Your task to perform on an android device: Go to calendar. Show me events next week Image 0: 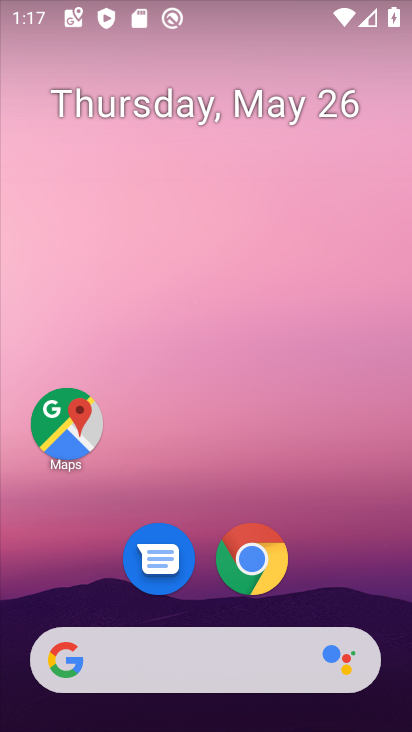
Step 0: drag from (195, 664) to (289, 136)
Your task to perform on an android device: Go to calendar. Show me events next week Image 1: 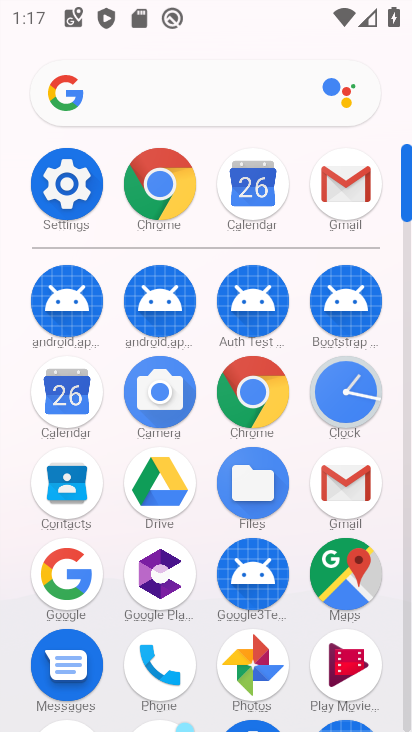
Step 1: click (63, 393)
Your task to perform on an android device: Go to calendar. Show me events next week Image 2: 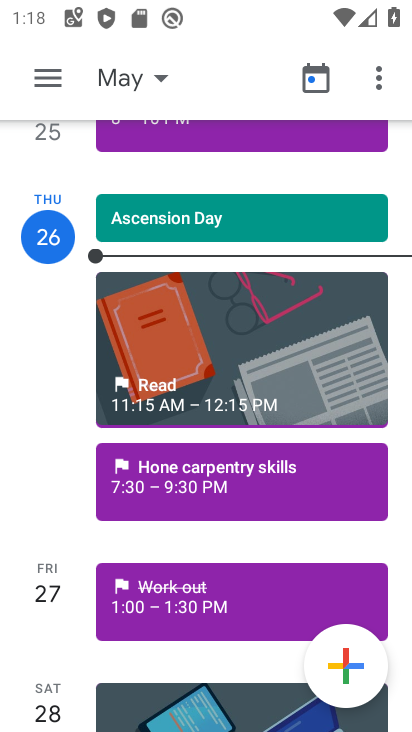
Step 2: click (116, 70)
Your task to perform on an android device: Go to calendar. Show me events next week Image 3: 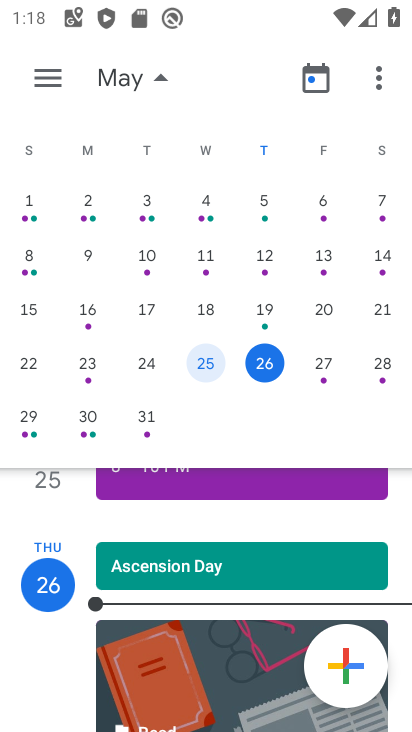
Step 3: click (29, 417)
Your task to perform on an android device: Go to calendar. Show me events next week Image 4: 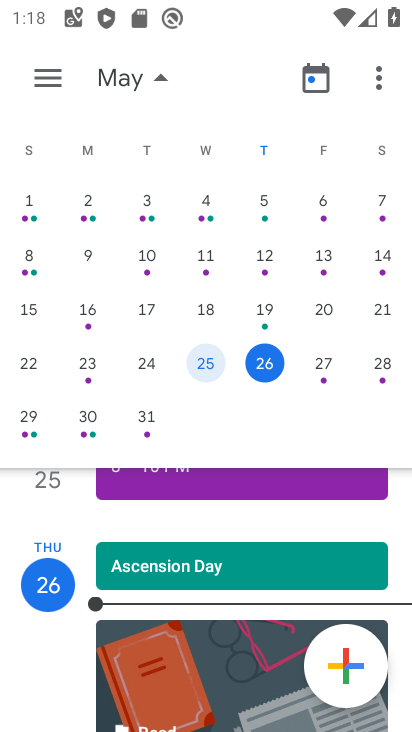
Step 4: click (41, 419)
Your task to perform on an android device: Go to calendar. Show me events next week Image 5: 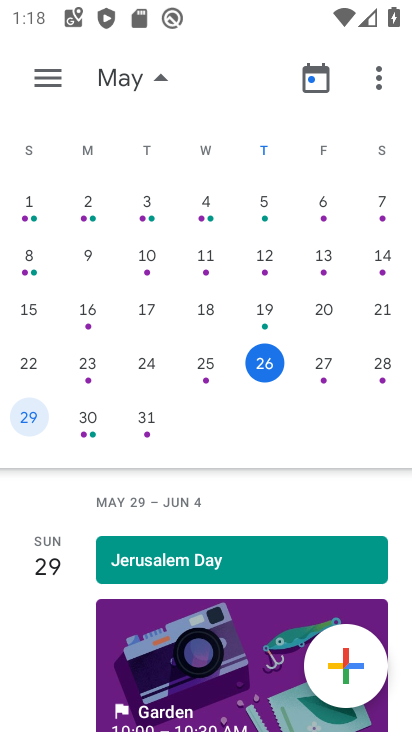
Step 5: click (51, 87)
Your task to perform on an android device: Go to calendar. Show me events next week Image 6: 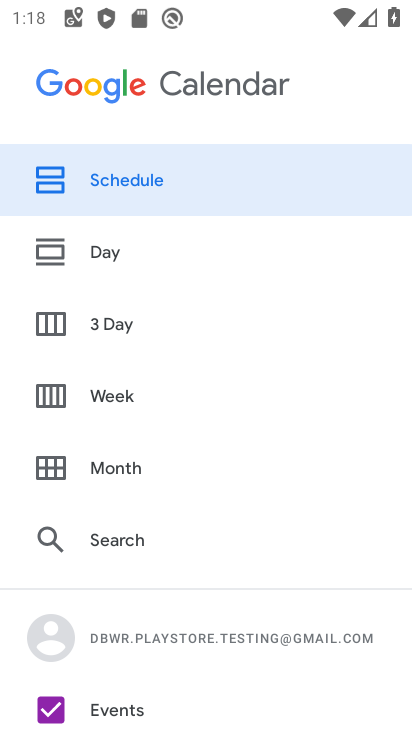
Step 6: click (98, 392)
Your task to perform on an android device: Go to calendar. Show me events next week Image 7: 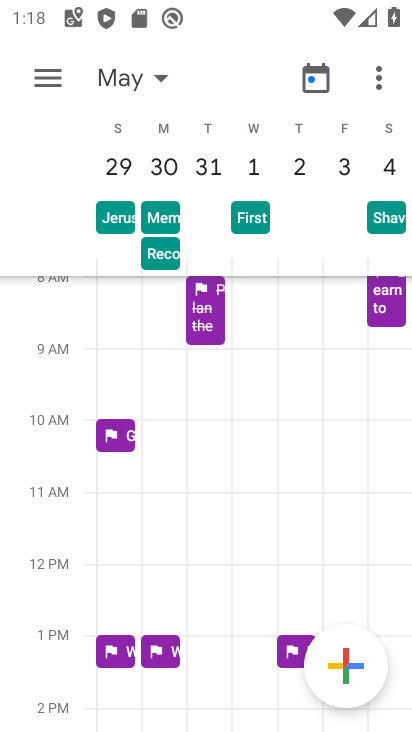
Step 7: click (46, 77)
Your task to perform on an android device: Go to calendar. Show me events next week Image 8: 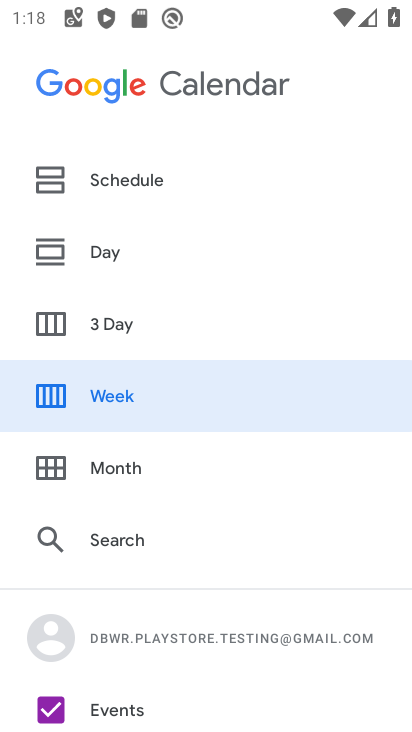
Step 8: click (136, 177)
Your task to perform on an android device: Go to calendar. Show me events next week Image 9: 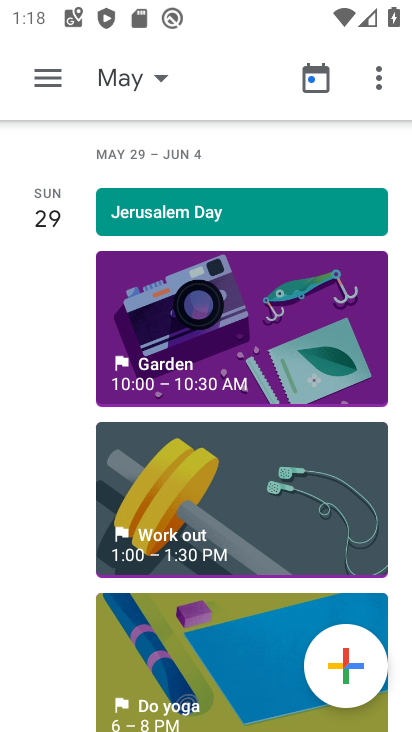
Step 9: click (220, 344)
Your task to perform on an android device: Go to calendar. Show me events next week Image 10: 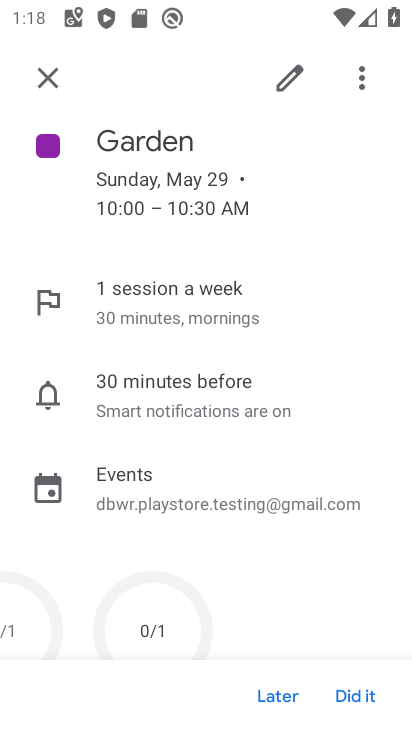
Step 10: task complete